Your task to perform on an android device: turn vacation reply on in the gmail app Image 0: 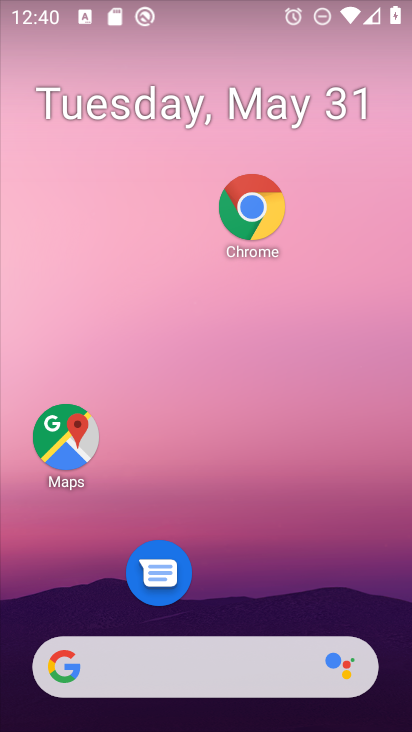
Step 0: drag from (218, 646) to (222, 86)
Your task to perform on an android device: turn vacation reply on in the gmail app Image 1: 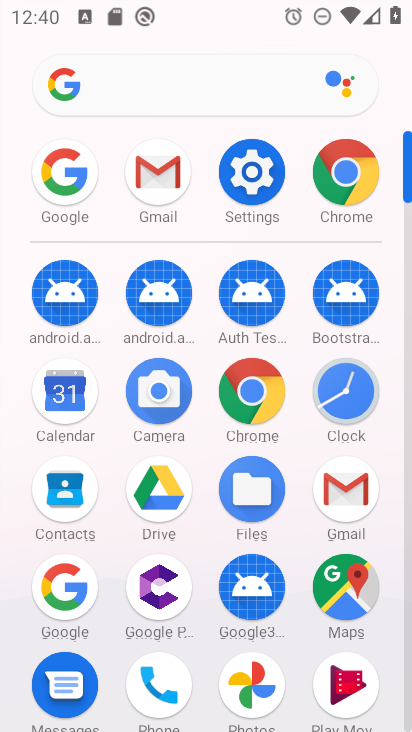
Step 1: click (355, 507)
Your task to perform on an android device: turn vacation reply on in the gmail app Image 2: 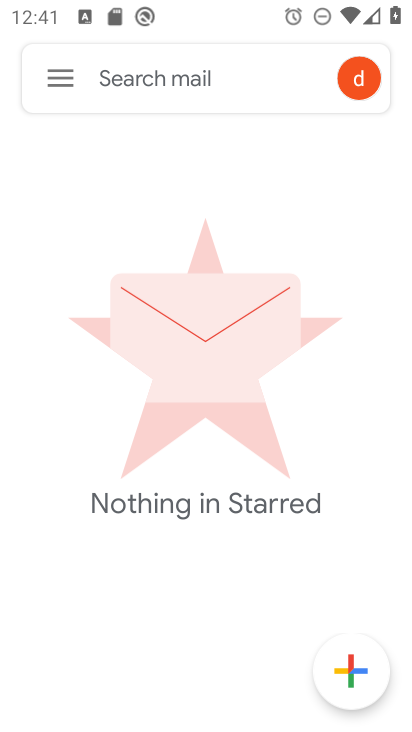
Step 2: click (50, 74)
Your task to perform on an android device: turn vacation reply on in the gmail app Image 3: 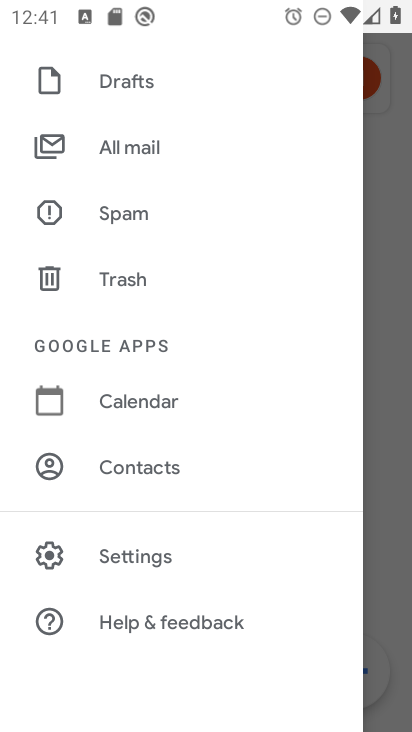
Step 3: click (145, 543)
Your task to perform on an android device: turn vacation reply on in the gmail app Image 4: 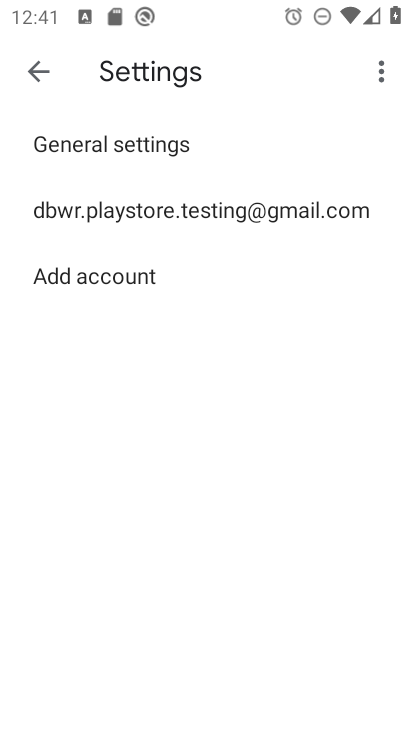
Step 4: click (225, 216)
Your task to perform on an android device: turn vacation reply on in the gmail app Image 5: 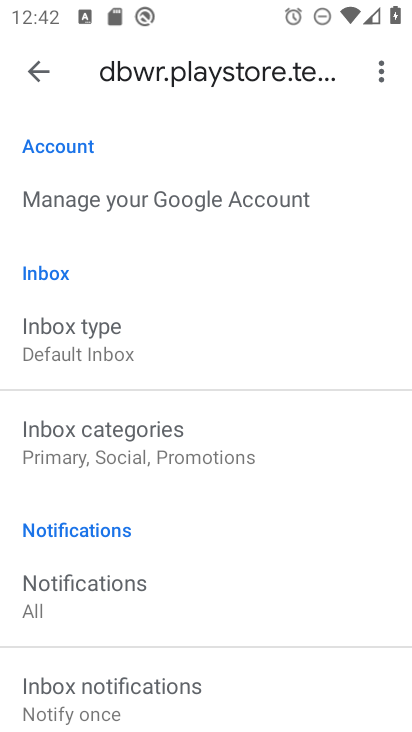
Step 5: drag from (195, 430) to (204, 214)
Your task to perform on an android device: turn vacation reply on in the gmail app Image 6: 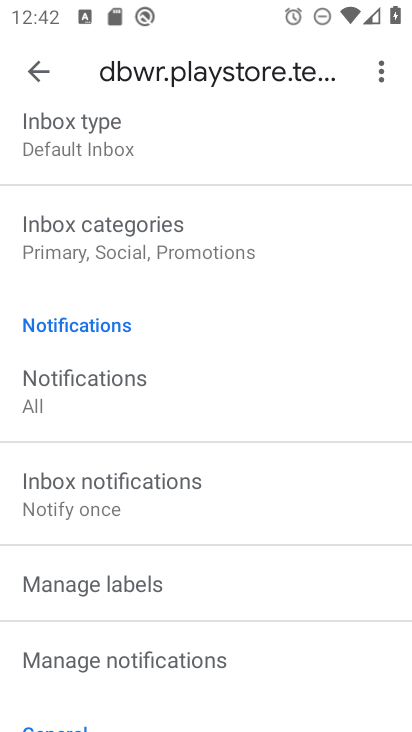
Step 6: drag from (175, 539) to (205, 156)
Your task to perform on an android device: turn vacation reply on in the gmail app Image 7: 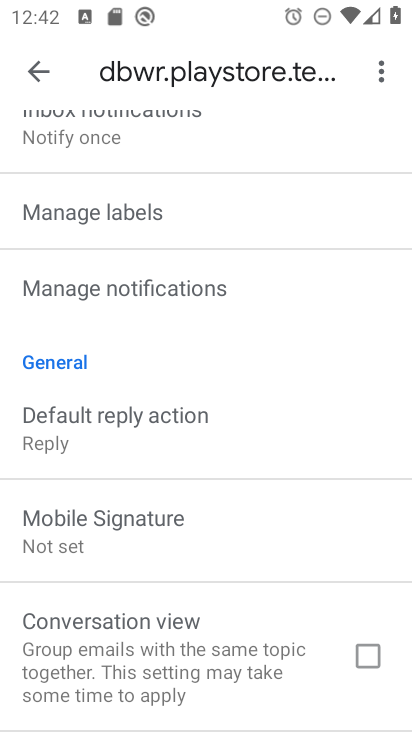
Step 7: drag from (180, 609) to (206, 254)
Your task to perform on an android device: turn vacation reply on in the gmail app Image 8: 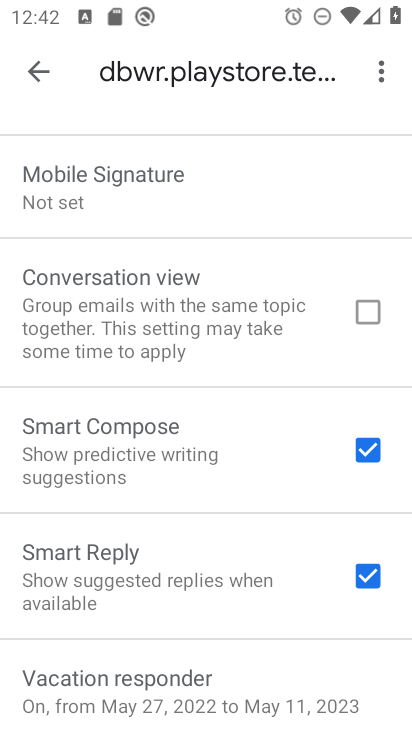
Step 8: drag from (150, 597) to (177, 327)
Your task to perform on an android device: turn vacation reply on in the gmail app Image 9: 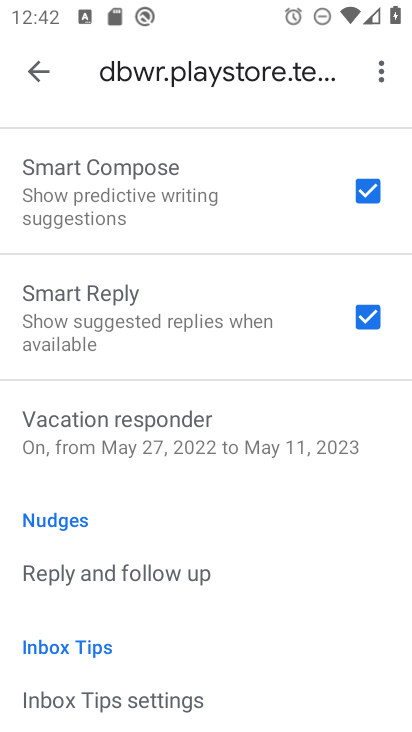
Step 9: click (220, 613)
Your task to perform on an android device: turn vacation reply on in the gmail app Image 10: 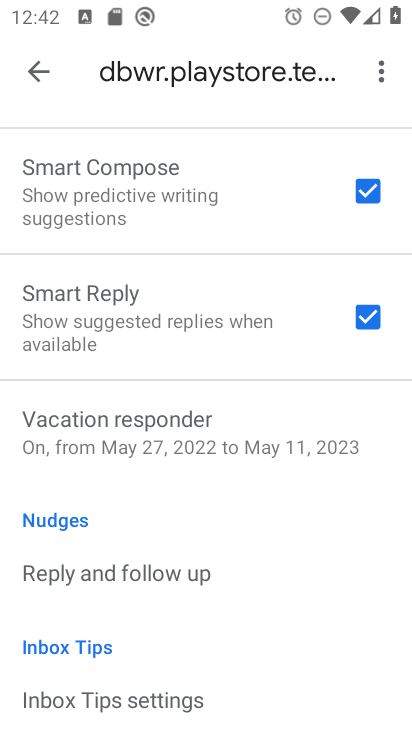
Step 10: click (166, 428)
Your task to perform on an android device: turn vacation reply on in the gmail app Image 11: 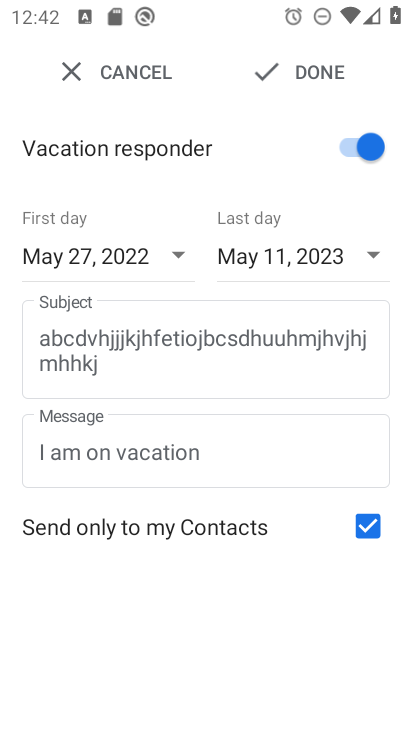
Step 11: task complete